Your task to perform on an android device: Open Yahoo.com Image 0: 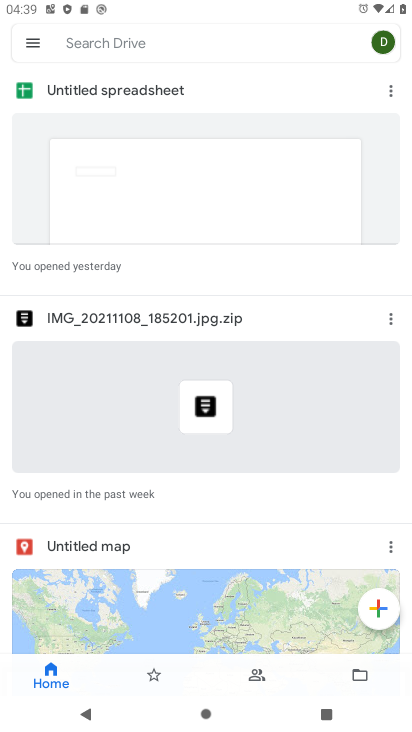
Step 0: press home button
Your task to perform on an android device: Open Yahoo.com Image 1: 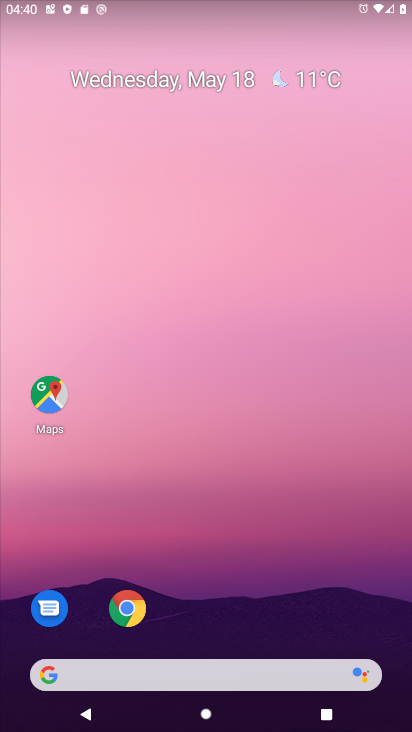
Step 1: click (129, 606)
Your task to perform on an android device: Open Yahoo.com Image 2: 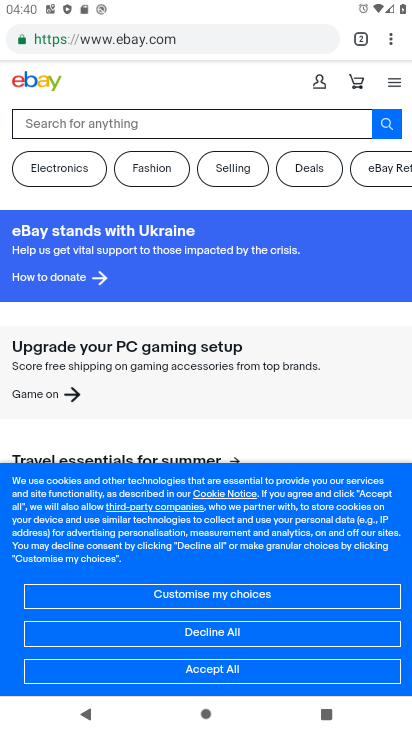
Step 2: click (366, 38)
Your task to perform on an android device: Open Yahoo.com Image 3: 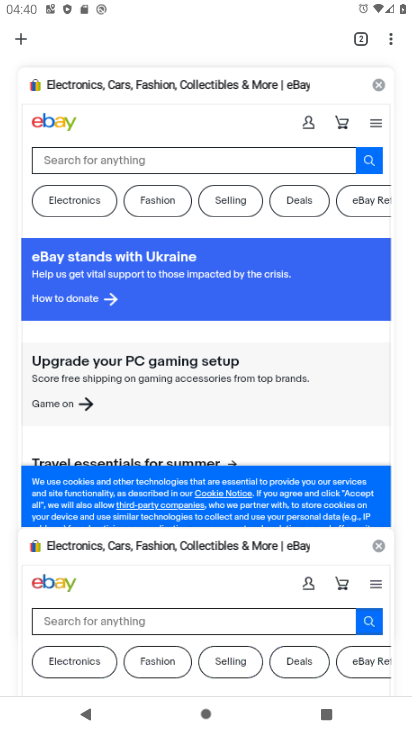
Step 3: click (23, 38)
Your task to perform on an android device: Open Yahoo.com Image 4: 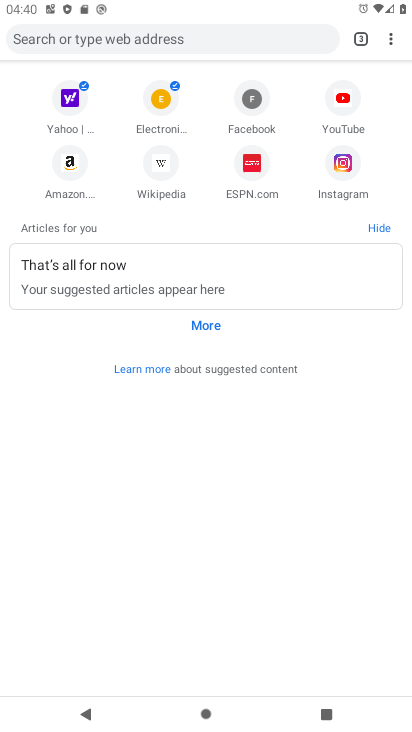
Step 4: click (70, 108)
Your task to perform on an android device: Open Yahoo.com Image 5: 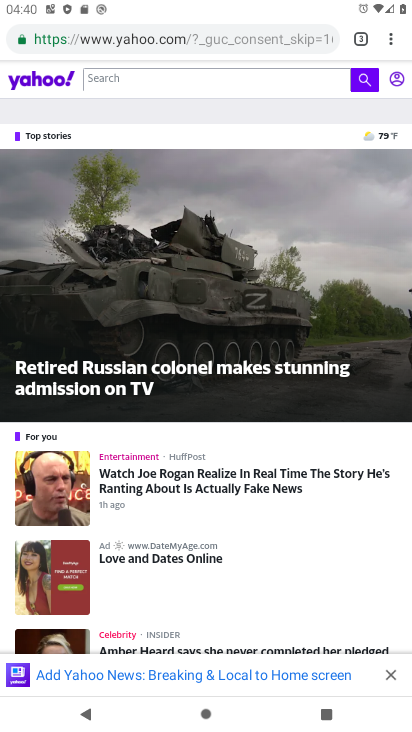
Step 5: task complete